Your task to perform on an android device: remove spam from my inbox in the gmail app Image 0: 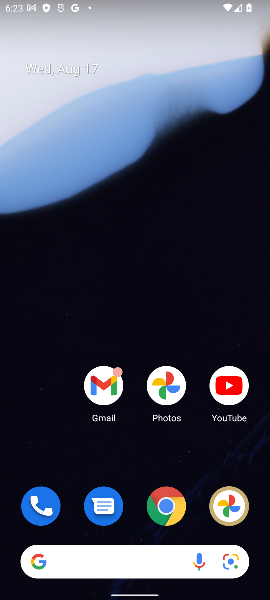
Step 0: drag from (138, 463) to (261, 57)
Your task to perform on an android device: remove spam from my inbox in the gmail app Image 1: 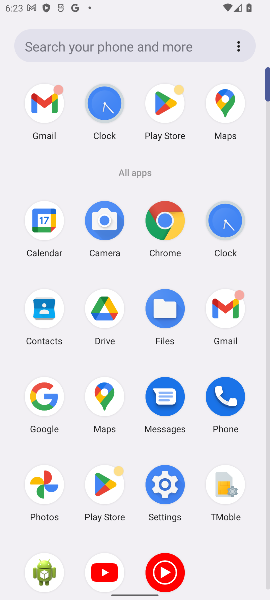
Step 1: click (236, 310)
Your task to perform on an android device: remove spam from my inbox in the gmail app Image 2: 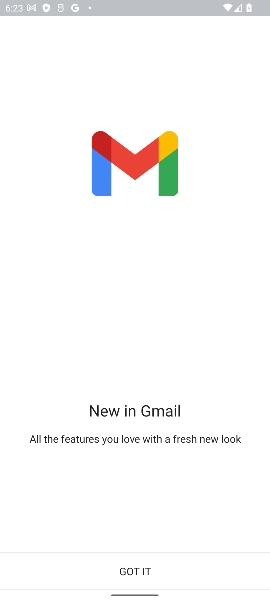
Step 2: click (157, 567)
Your task to perform on an android device: remove spam from my inbox in the gmail app Image 3: 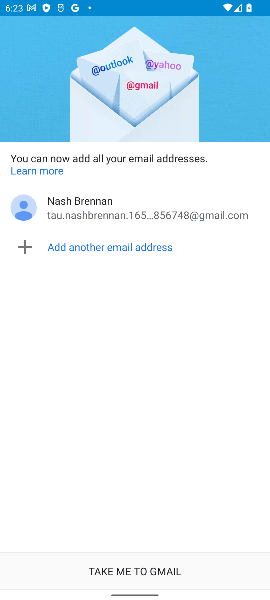
Step 3: click (128, 540)
Your task to perform on an android device: remove spam from my inbox in the gmail app Image 4: 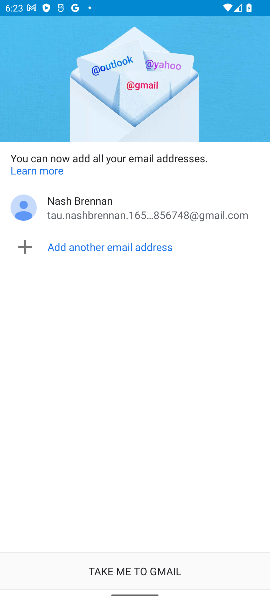
Step 4: click (128, 573)
Your task to perform on an android device: remove spam from my inbox in the gmail app Image 5: 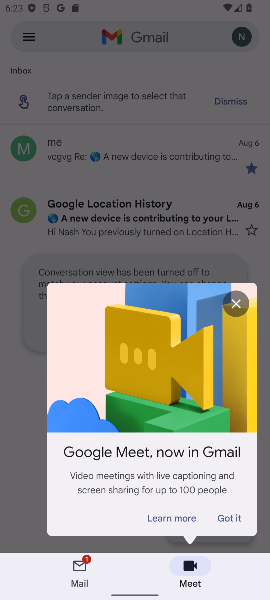
Step 5: click (245, 297)
Your task to perform on an android device: remove spam from my inbox in the gmail app Image 6: 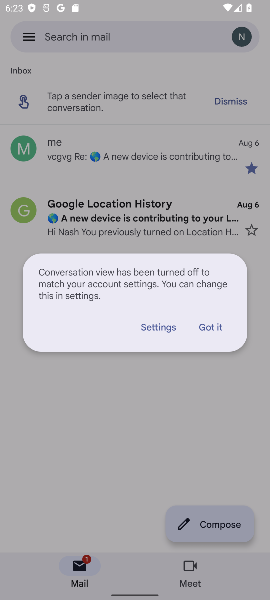
Step 6: click (214, 323)
Your task to perform on an android device: remove spam from my inbox in the gmail app Image 7: 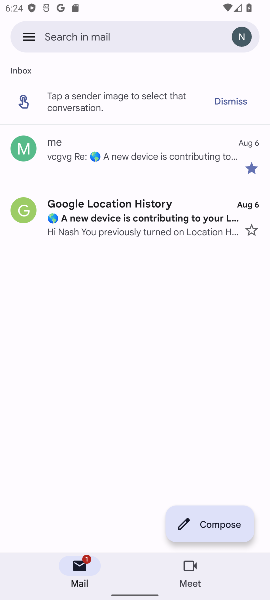
Step 7: click (28, 32)
Your task to perform on an android device: remove spam from my inbox in the gmail app Image 8: 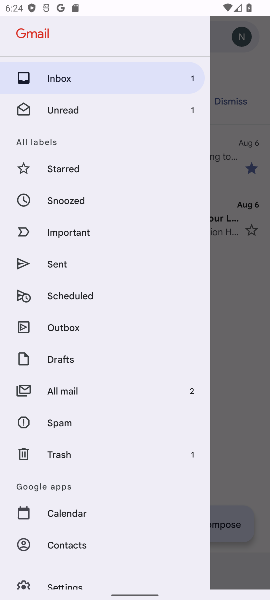
Step 8: click (84, 428)
Your task to perform on an android device: remove spam from my inbox in the gmail app Image 9: 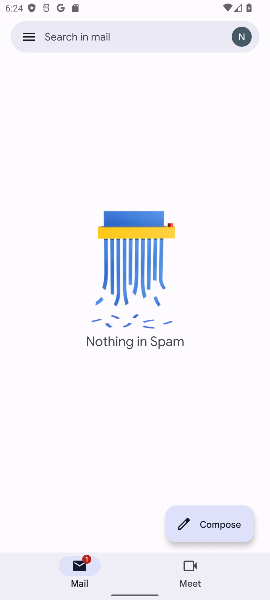
Step 9: click (38, 38)
Your task to perform on an android device: remove spam from my inbox in the gmail app Image 10: 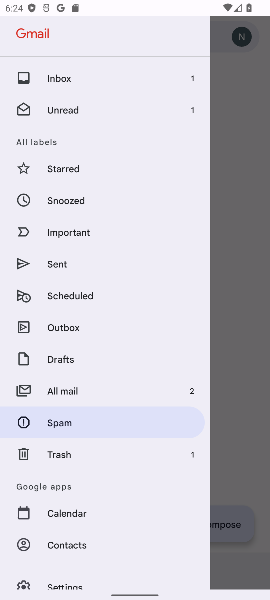
Step 10: click (103, 79)
Your task to perform on an android device: remove spam from my inbox in the gmail app Image 11: 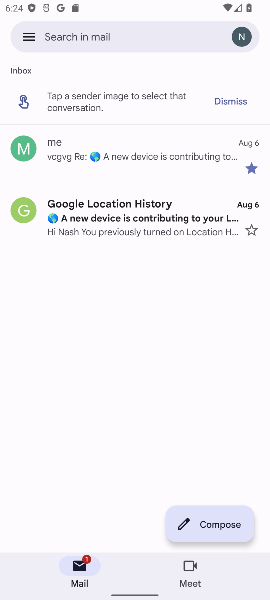
Step 11: task complete